Your task to perform on an android device: Check the weather Image 0: 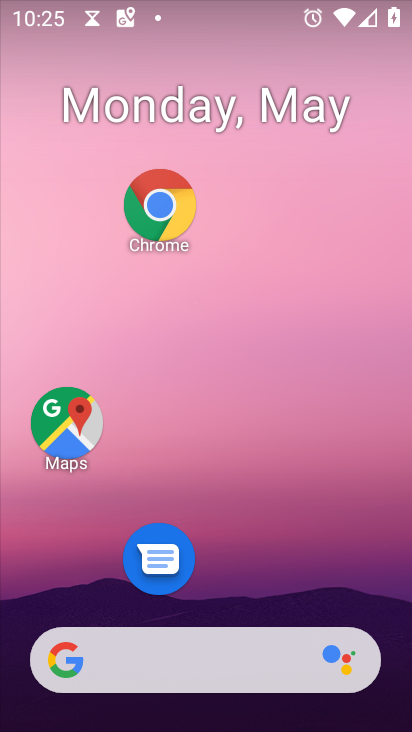
Step 0: drag from (264, 669) to (224, 166)
Your task to perform on an android device: Check the weather Image 1: 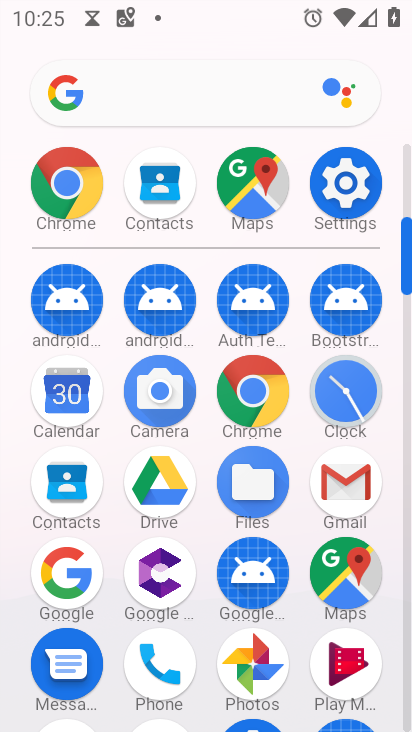
Step 1: click (338, 187)
Your task to perform on an android device: Check the weather Image 2: 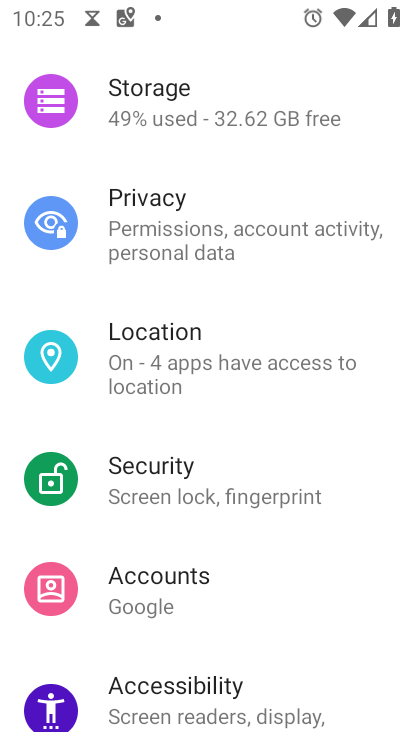
Step 2: press back button
Your task to perform on an android device: Check the weather Image 3: 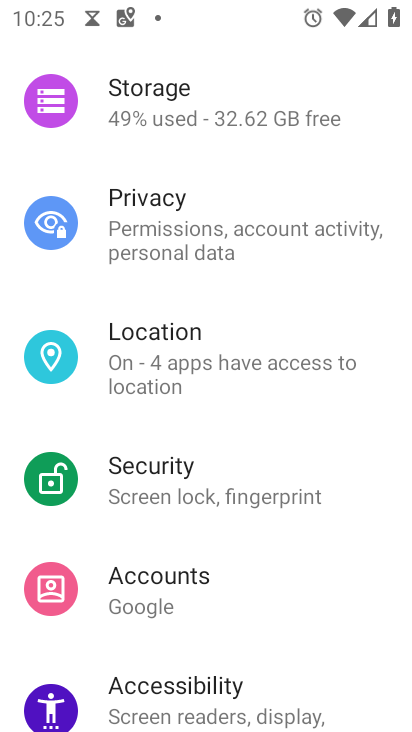
Step 3: press back button
Your task to perform on an android device: Check the weather Image 4: 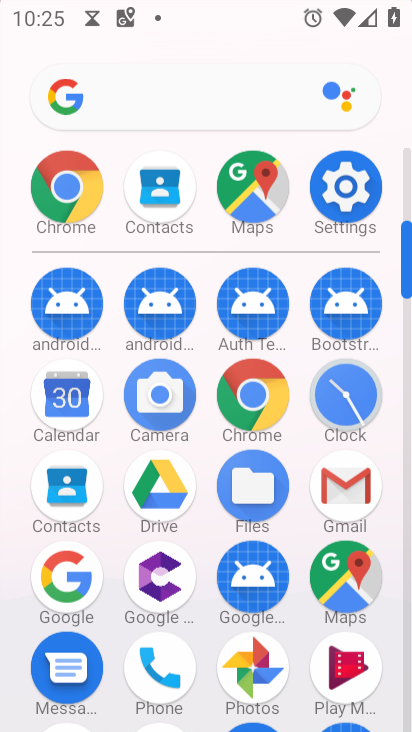
Step 4: press back button
Your task to perform on an android device: Check the weather Image 5: 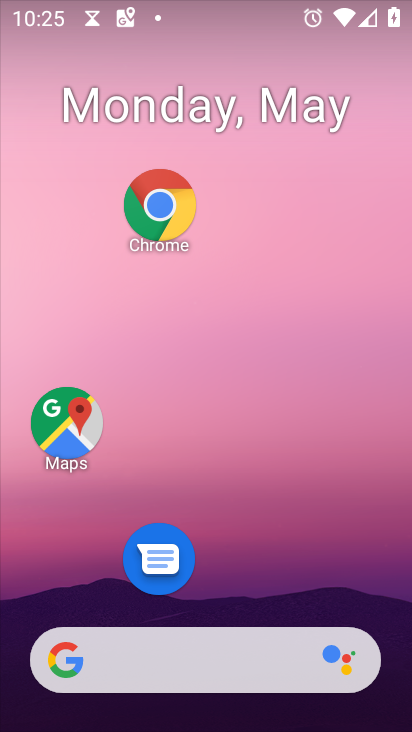
Step 5: drag from (213, 659) to (174, 57)
Your task to perform on an android device: Check the weather Image 6: 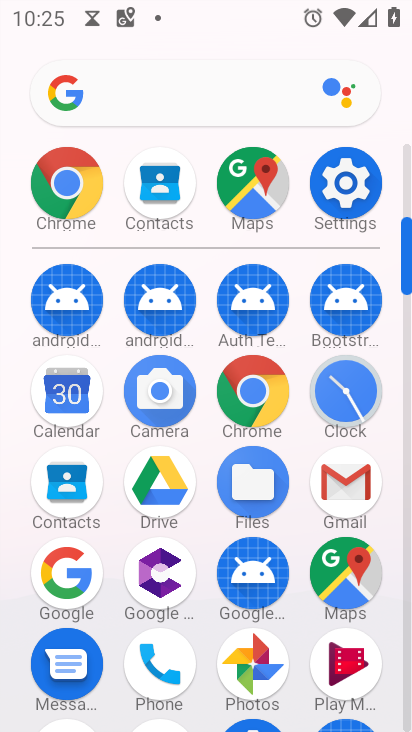
Step 6: press home button
Your task to perform on an android device: Check the weather Image 7: 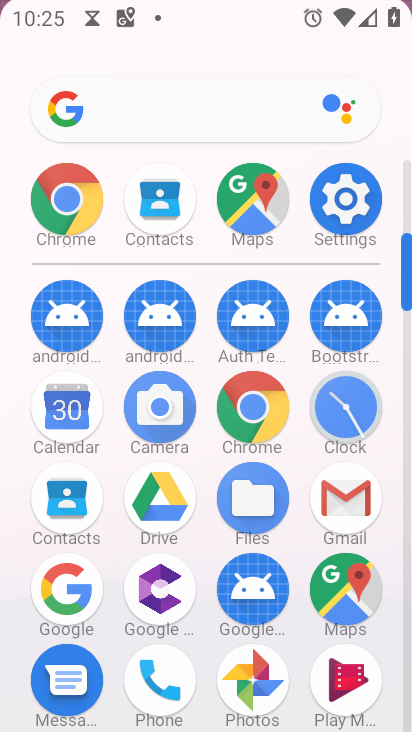
Step 7: press home button
Your task to perform on an android device: Check the weather Image 8: 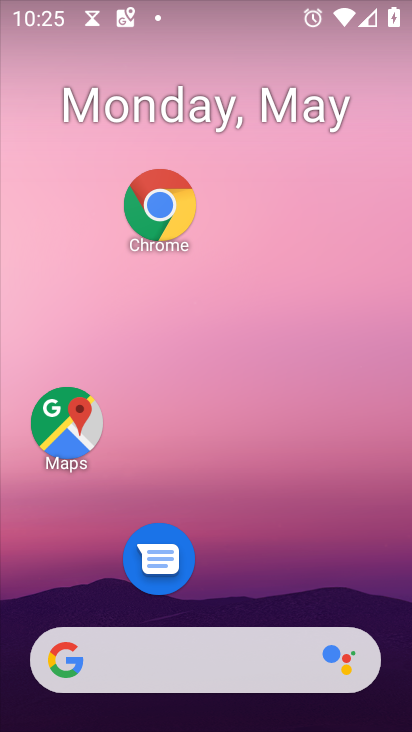
Step 8: press home button
Your task to perform on an android device: Check the weather Image 9: 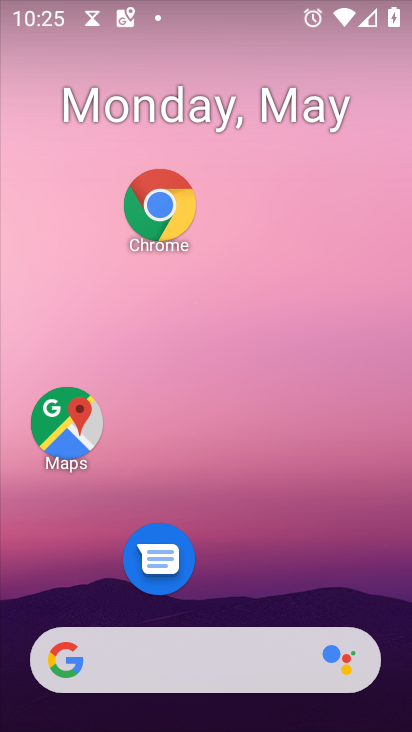
Step 9: press home button
Your task to perform on an android device: Check the weather Image 10: 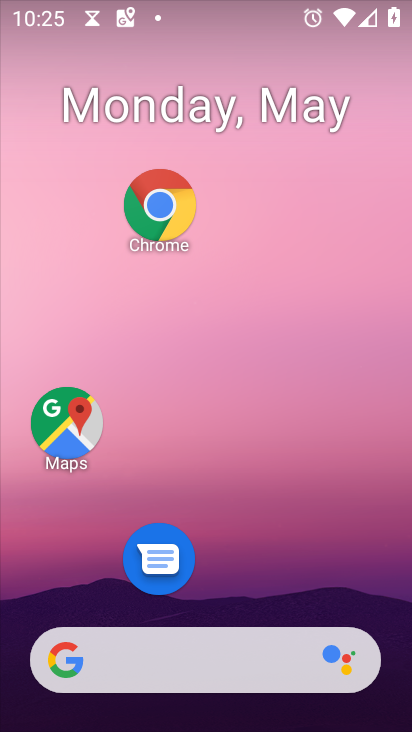
Step 10: drag from (14, 185) to (391, 389)
Your task to perform on an android device: Check the weather Image 11: 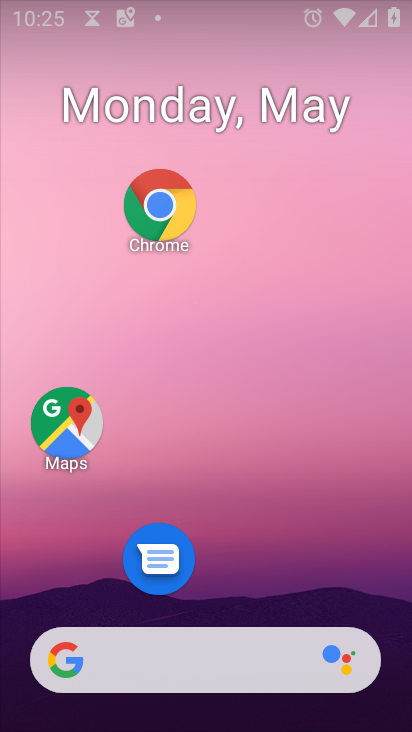
Step 11: drag from (46, 162) to (352, 214)
Your task to perform on an android device: Check the weather Image 12: 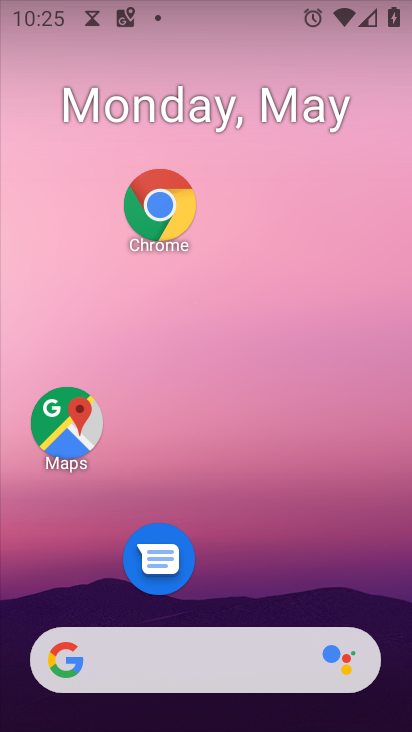
Step 12: drag from (16, 193) to (294, 237)
Your task to perform on an android device: Check the weather Image 13: 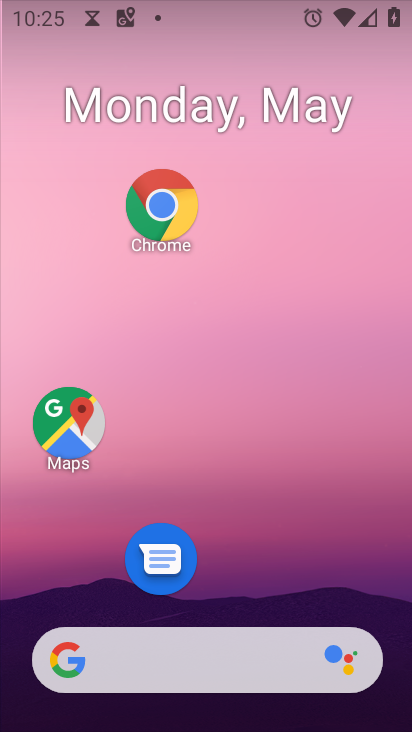
Step 13: drag from (40, 184) to (389, 360)
Your task to perform on an android device: Check the weather Image 14: 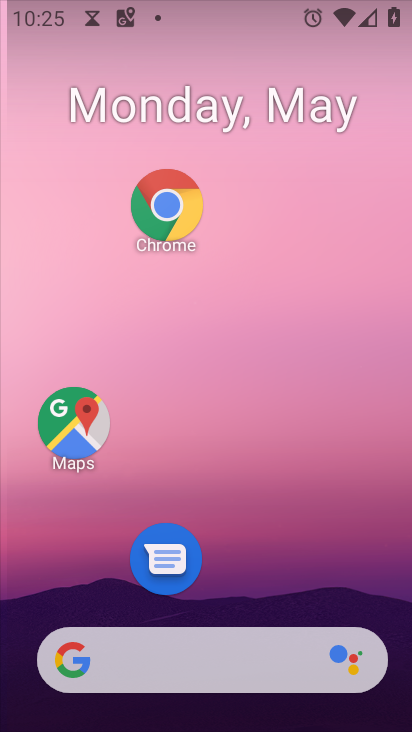
Step 14: drag from (3, 203) to (409, 411)
Your task to perform on an android device: Check the weather Image 15: 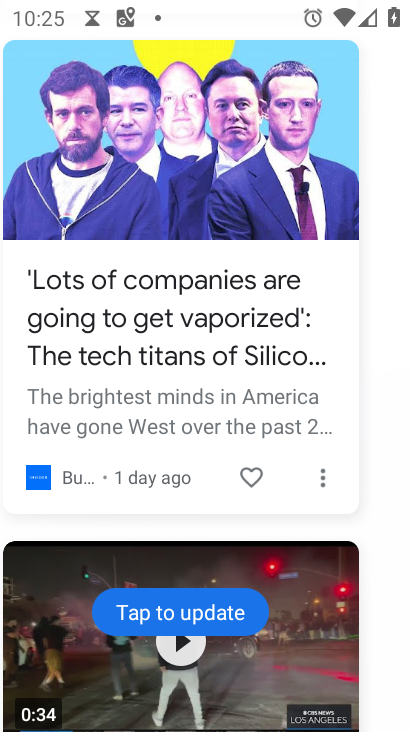
Step 15: drag from (41, 179) to (391, 402)
Your task to perform on an android device: Check the weather Image 16: 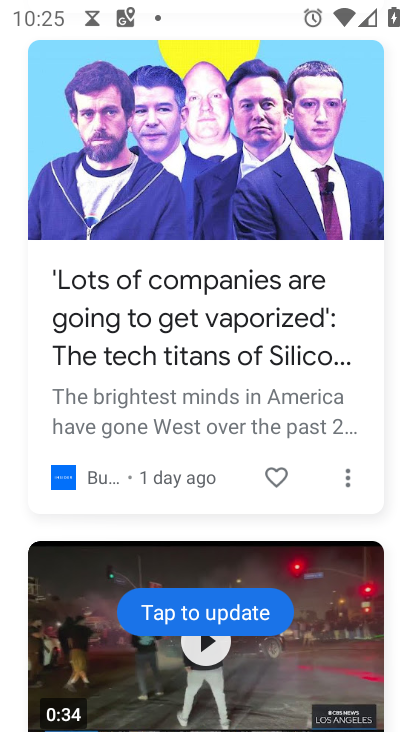
Step 16: drag from (171, 143) to (190, 498)
Your task to perform on an android device: Check the weather Image 17: 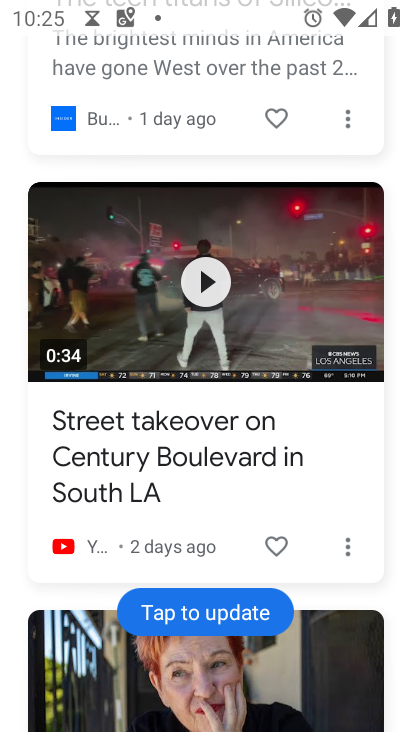
Step 17: drag from (177, 201) to (173, 628)
Your task to perform on an android device: Check the weather Image 18: 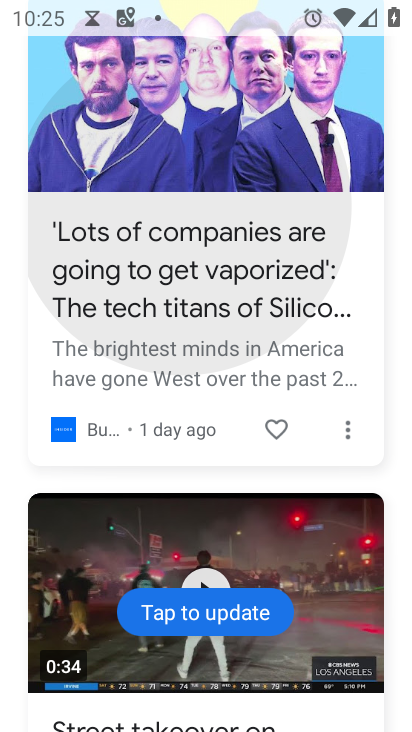
Step 18: drag from (158, 328) to (150, 482)
Your task to perform on an android device: Check the weather Image 19: 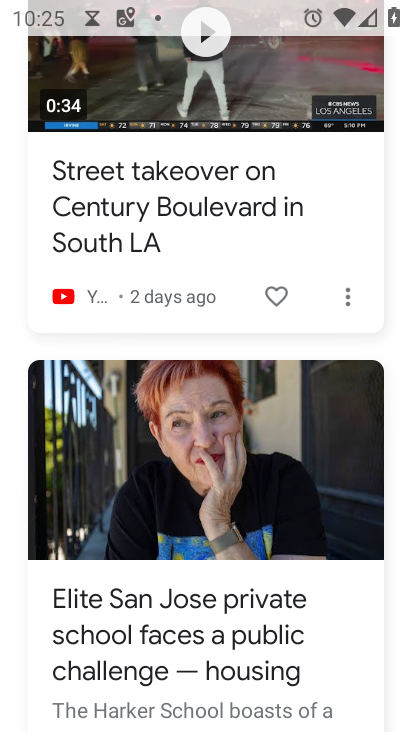
Step 19: drag from (164, 204) to (178, 443)
Your task to perform on an android device: Check the weather Image 20: 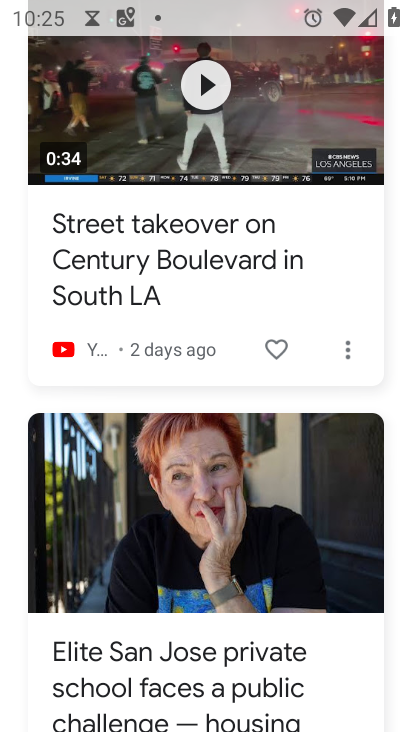
Step 20: drag from (160, 145) to (208, 500)
Your task to perform on an android device: Check the weather Image 21: 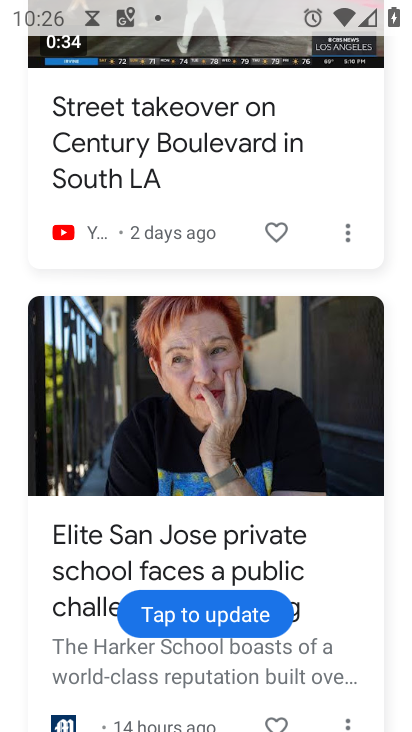
Step 21: drag from (202, 171) to (199, 397)
Your task to perform on an android device: Check the weather Image 22: 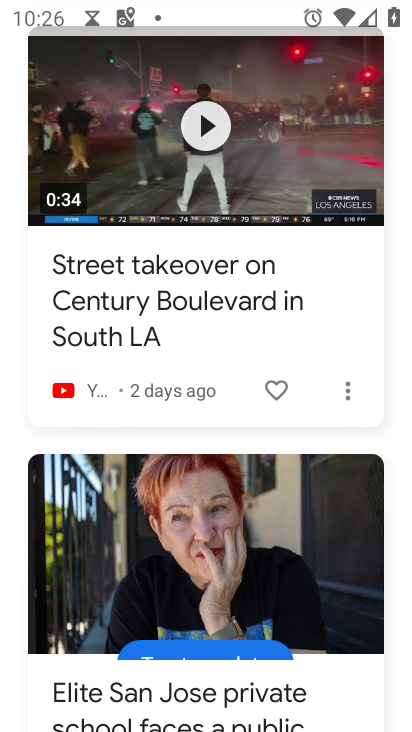
Step 22: drag from (154, 124) to (204, 403)
Your task to perform on an android device: Check the weather Image 23: 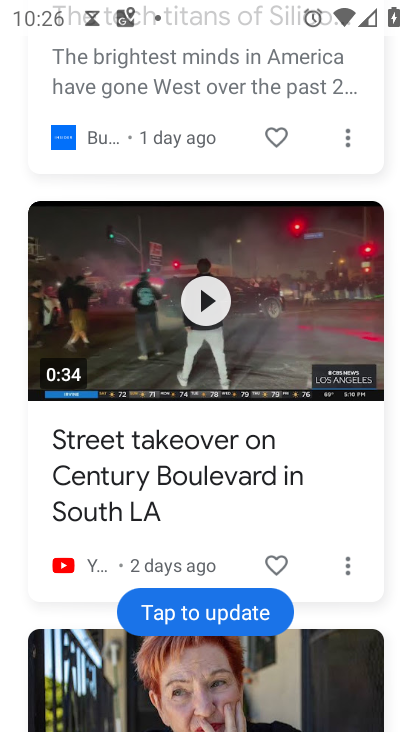
Step 23: drag from (196, 106) to (250, 489)
Your task to perform on an android device: Check the weather Image 24: 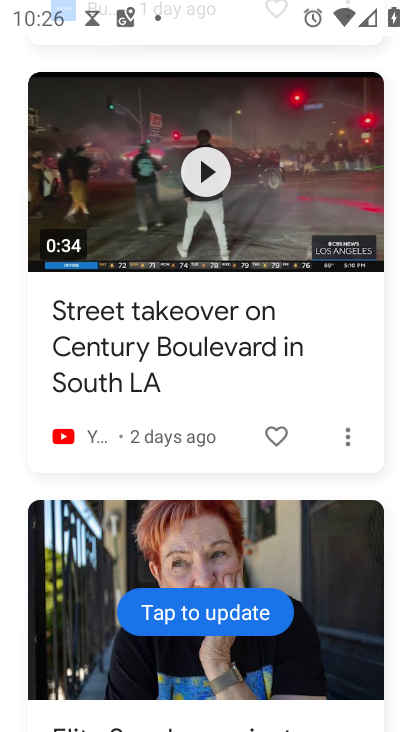
Step 24: drag from (188, 240) to (185, 423)
Your task to perform on an android device: Check the weather Image 25: 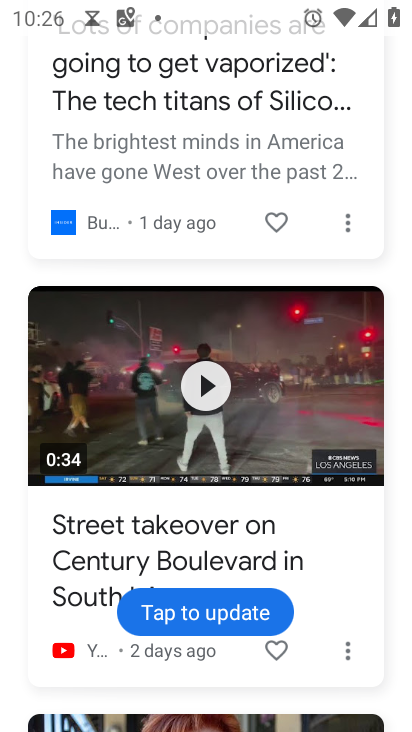
Step 25: drag from (153, 182) to (205, 482)
Your task to perform on an android device: Check the weather Image 26: 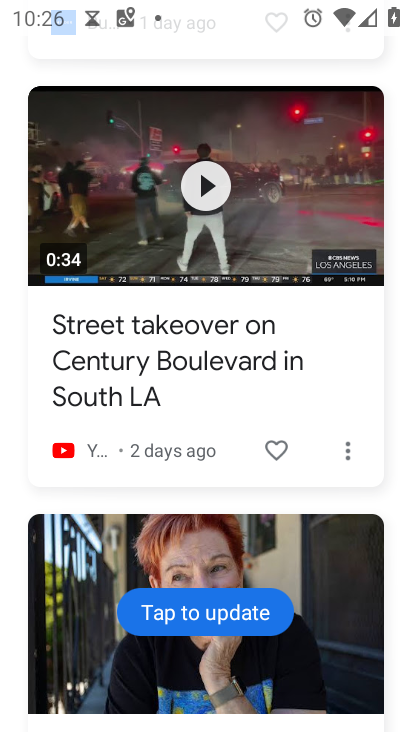
Step 26: drag from (165, 287) to (203, 631)
Your task to perform on an android device: Check the weather Image 27: 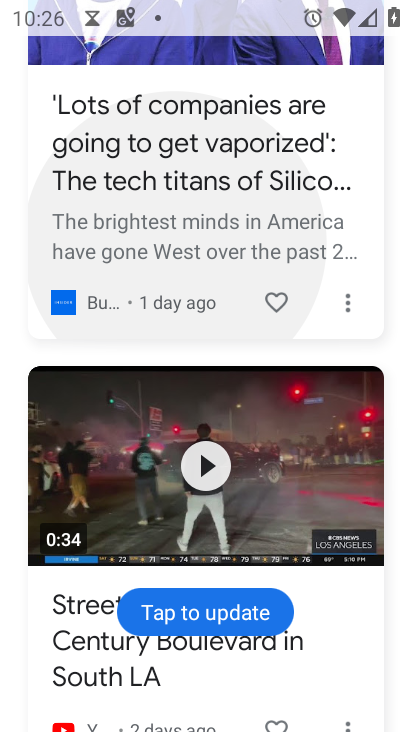
Step 27: drag from (161, 326) to (210, 436)
Your task to perform on an android device: Check the weather Image 28: 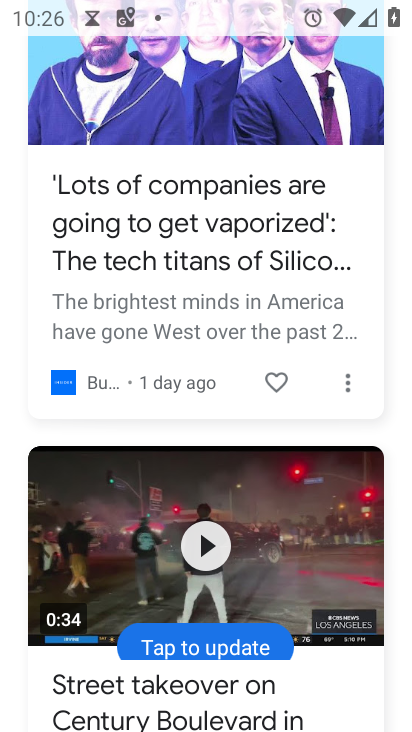
Step 28: drag from (231, 98) to (250, 501)
Your task to perform on an android device: Check the weather Image 29: 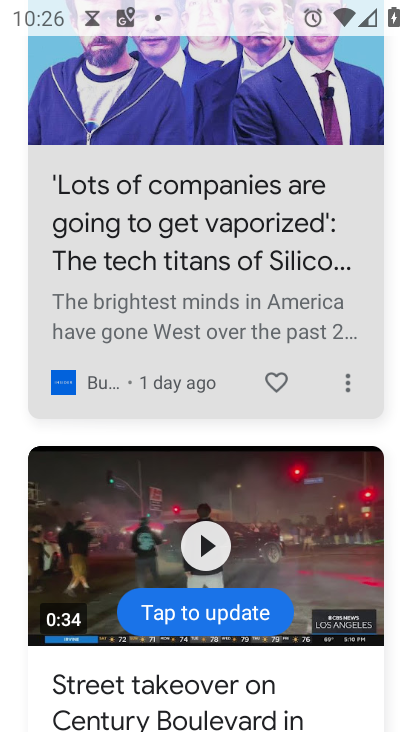
Step 29: drag from (139, 92) to (253, 352)
Your task to perform on an android device: Check the weather Image 30: 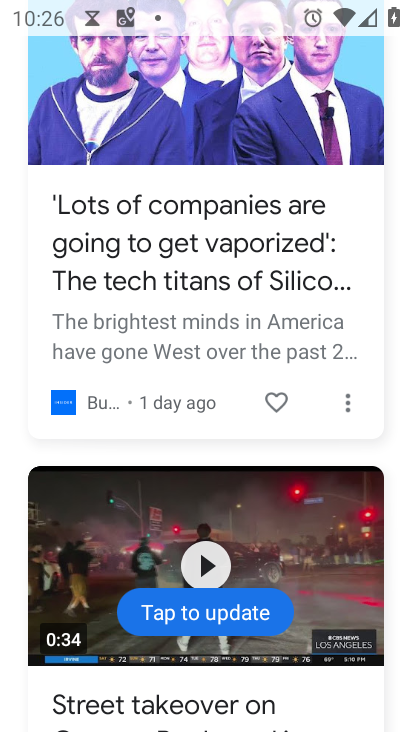
Step 30: drag from (182, 157) to (159, 293)
Your task to perform on an android device: Check the weather Image 31: 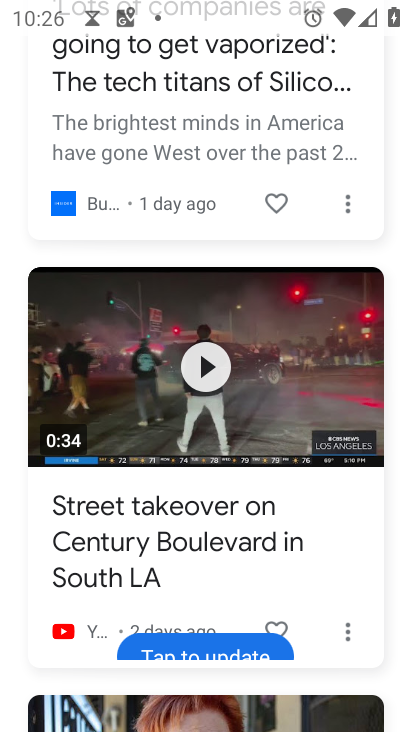
Step 31: drag from (93, 117) to (168, 409)
Your task to perform on an android device: Check the weather Image 32: 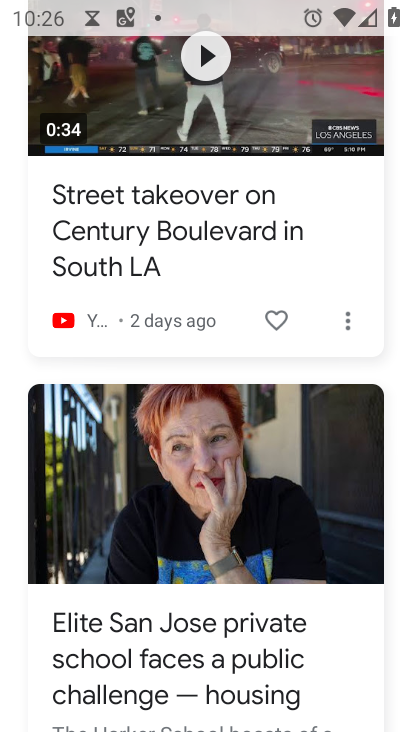
Step 32: drag from (144, 149) to (249, 363)
Your task to perform on an android device: Check the weather Image 33: 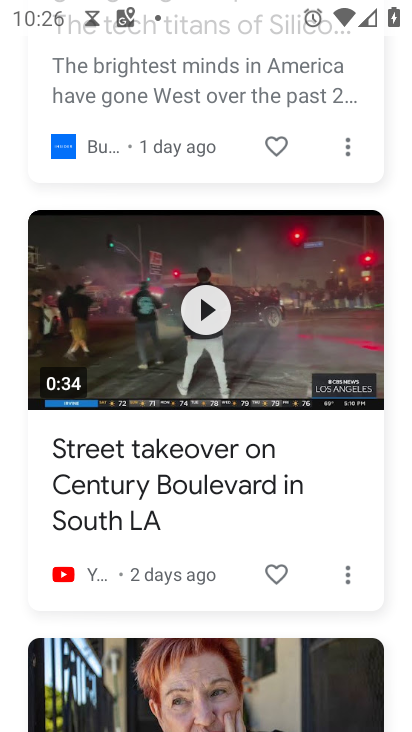
Step 33: drag from (159, 94) to (266, 469)
Your task to perform on an android device: Check the weather Image 34: 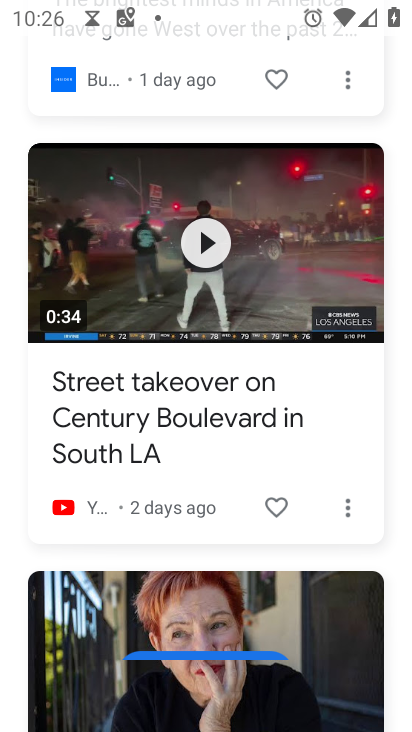
Step 34: drag from (185, 99) to (236, 468)
Your task to perform on an android device: Check the weather Image 35: 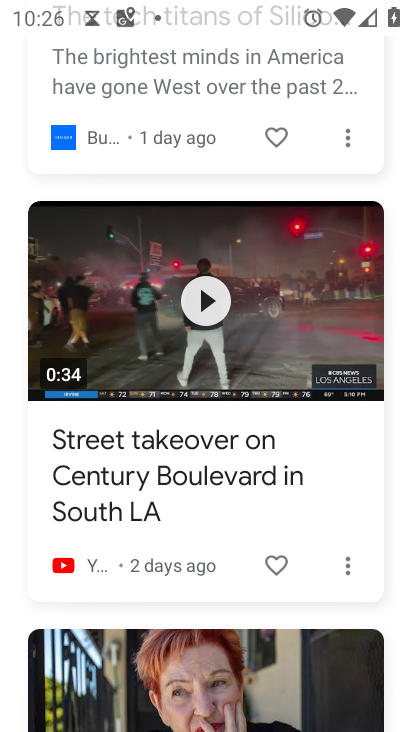
Step 35: drag from (230, 70) to (222, 493)
Your task to perform on an android device: Check the weather Image 36: 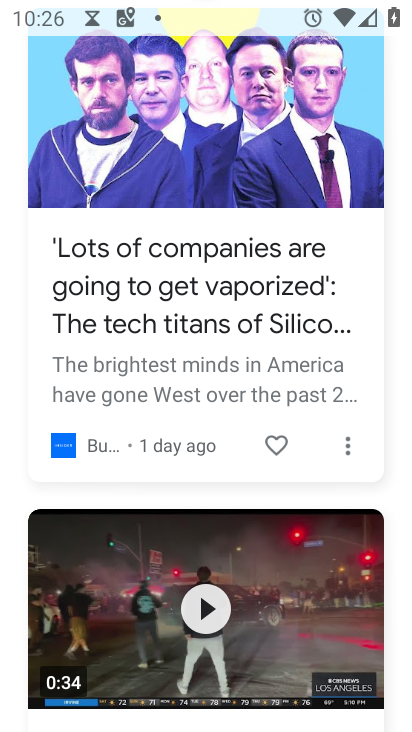
Step 36: drag from (172, 220) to (259, 471)
Your task to perform on an android device: Check the weather Image 37: 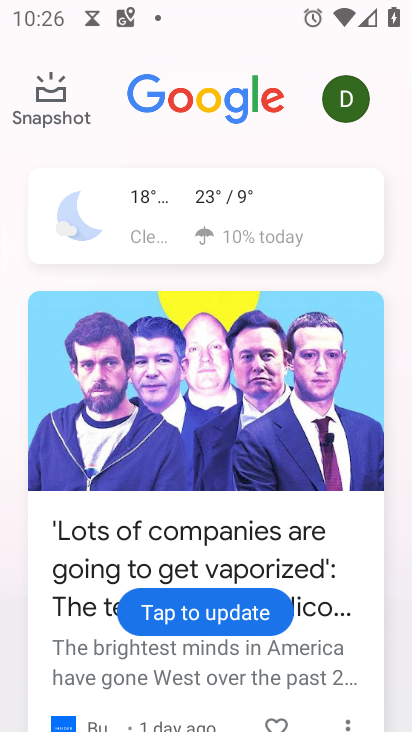
Step 37: drag from (170, 142) to (221, 333)
Your task to perform on an android device: Check the weather Image 38: 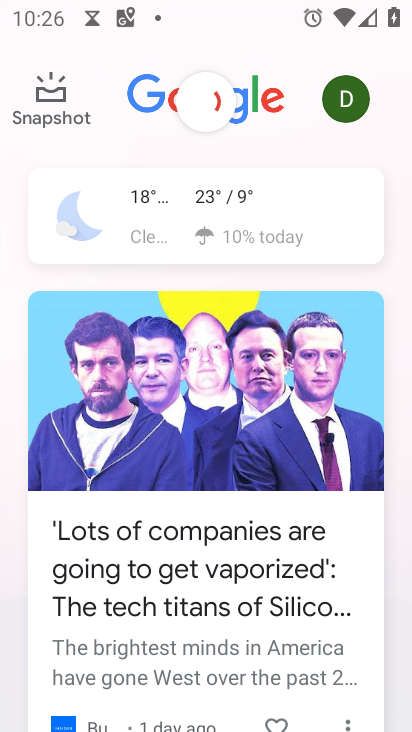
Step 38: click (174, 197)
Your task to perform on an android device: Check the weather Image 39: 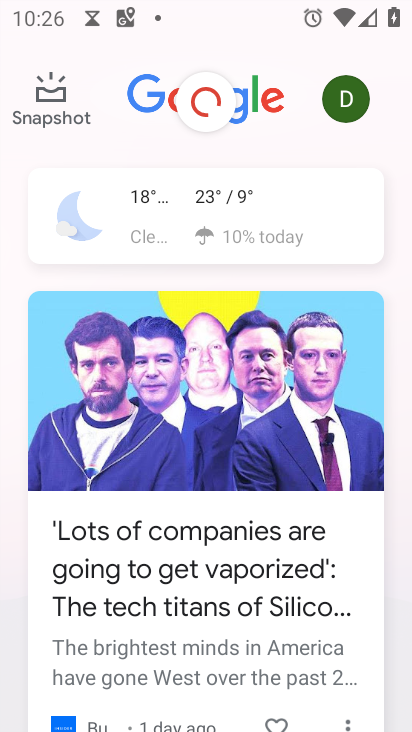
Step 39: click (177, 205)
Your task to perform on an android device: Check the weather Image 40: 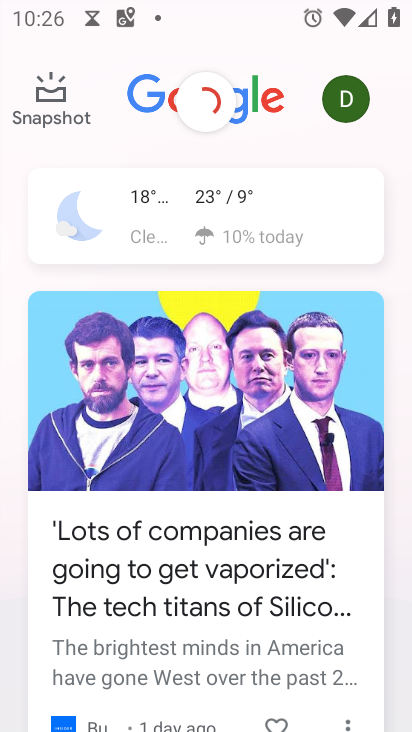
Step 40: click (177, 205)
Your task to perform on an android device: Check the weather Image 41: 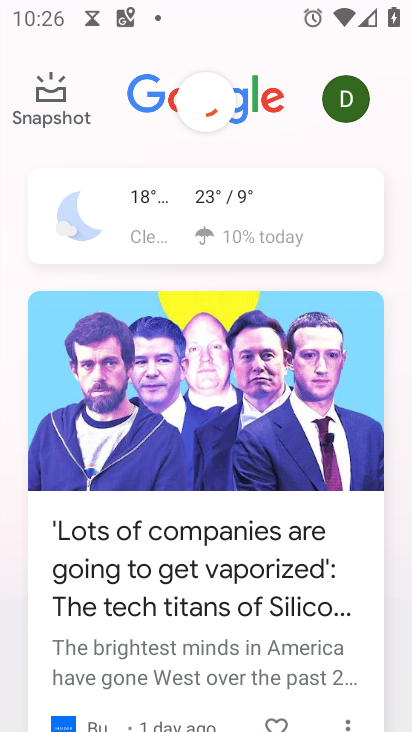
Step 41: click (177, 205)
Your task to perform on an android device: Check the weather Image 42: 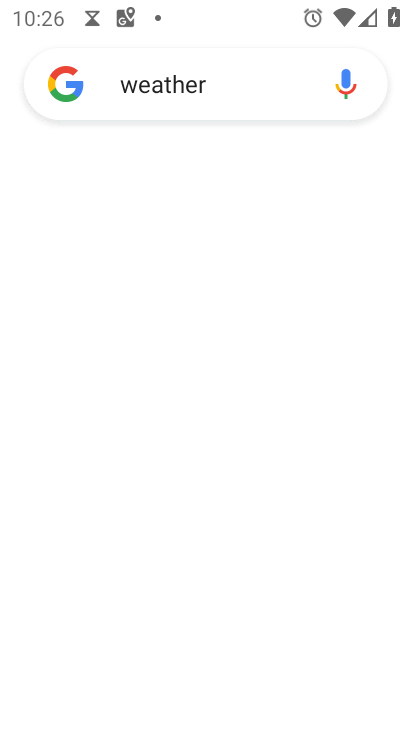
Step 42: click (177, 204)
Your task to perform on an android device: Check the weather Image 43: 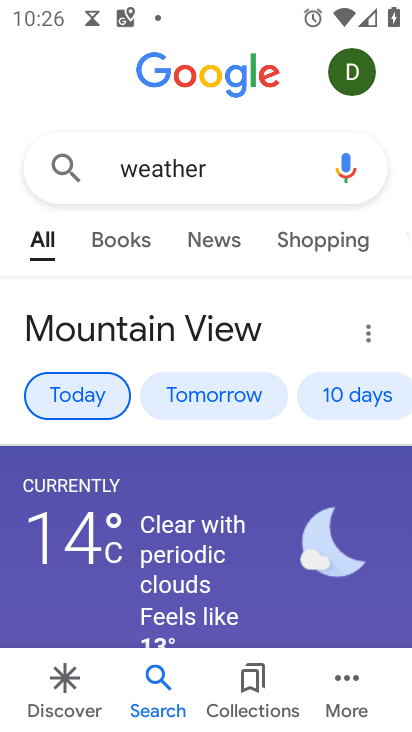
Step 43: task complete